Your task to perform on an android device: Open the phone app and click the voicemail tab. Image 0: 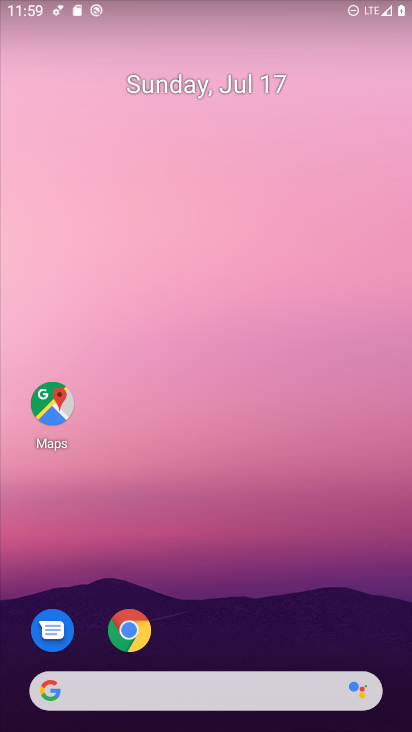
Step 0: drag from (193, 456) to (176, 70)
Your task to perform on an android device: Open the phone app and click the voicemail tab. Image 1: 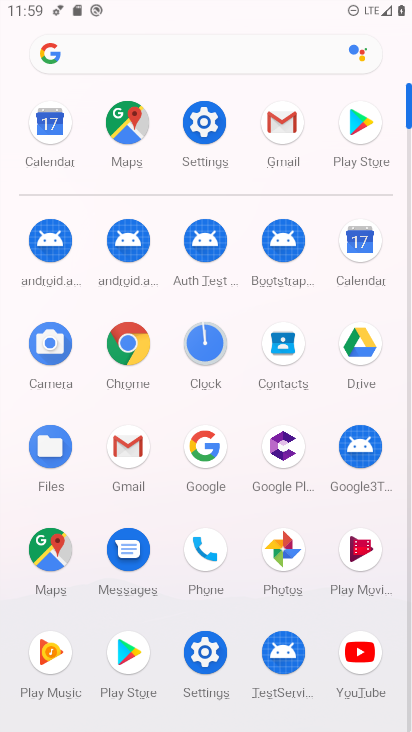
Step 1: click (207, 543)
Your task to perform on an android device: Open the phone app and click the voicemail tab. Image 2: 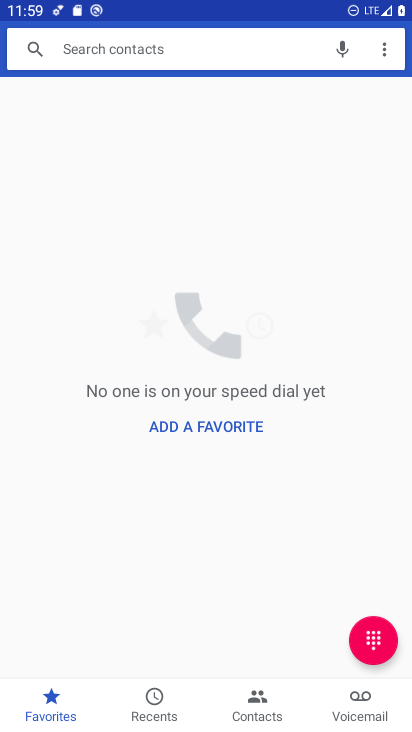
Step 2: click (362, 719)
Your task to perform on an android device: Open the phone app and click the voicemail tab. Image 3: 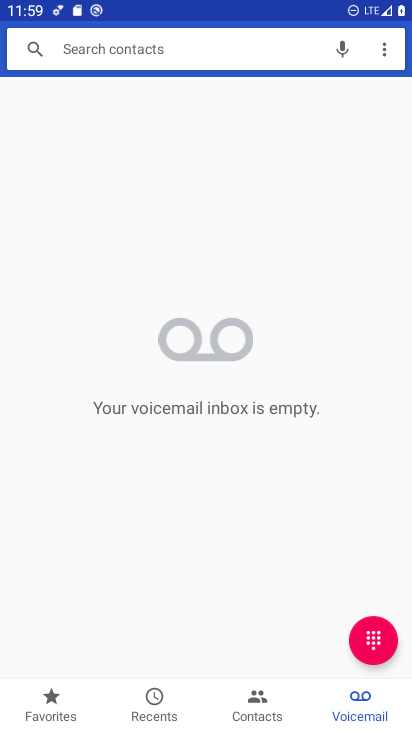
Step 3: task complete